Your task to perform on an android device: Open calendar and show me the first week of next month Image 0: 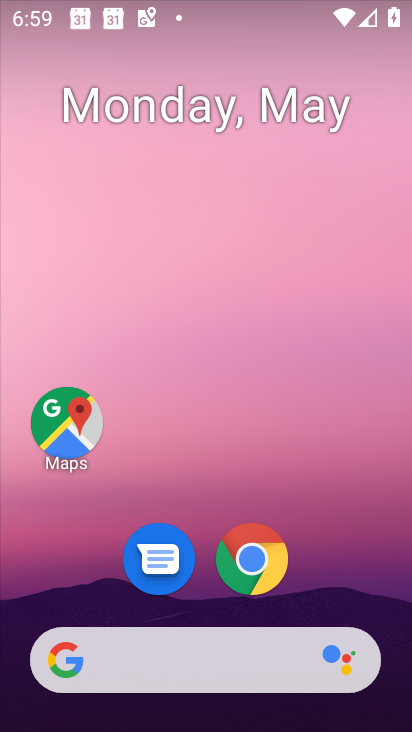
Step 0: drag from (389, 647) to (268, 40)
Your task to perform on an android device: Open calendar and show me the first week of next month Image 1: 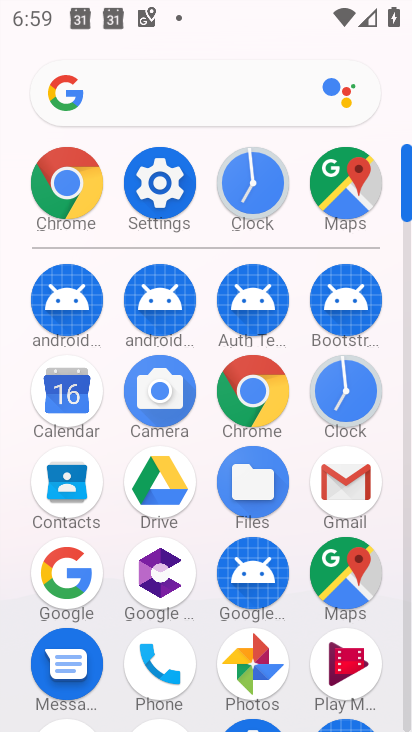
Step 1: click (71, 436)
Your task to perform on an android device: Open calendar and show me the first week of next month Image 2: 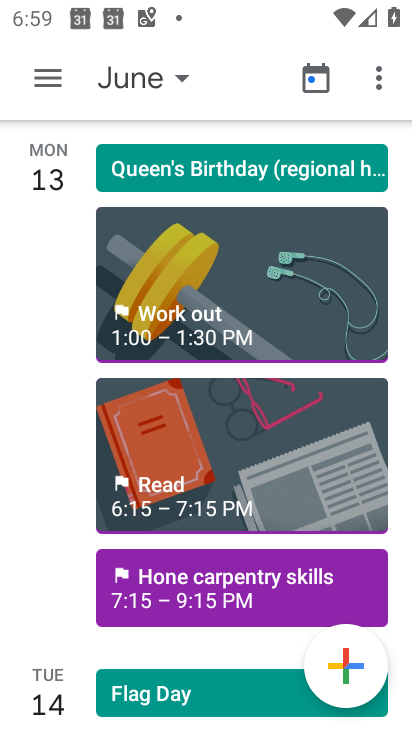
Step 2: click (141, 77)
Your task to perform on an android device: Open calendar and show me the first week of next month Image 3: 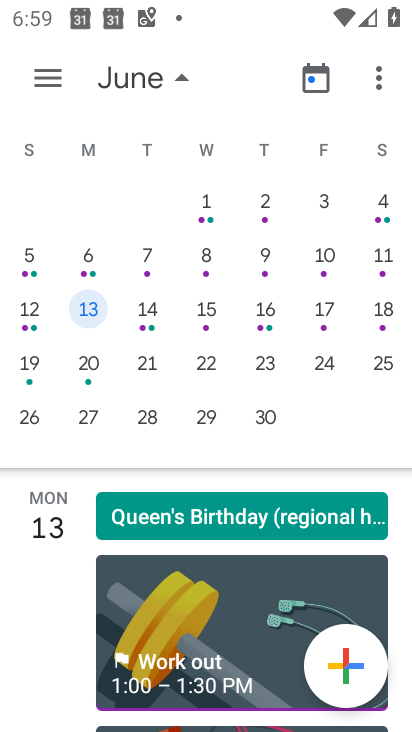
Step 3: drag from (368, 320) to (20, 223)
Your task to perform on an android device: Open calendar and show me the first week of next month Image 4: 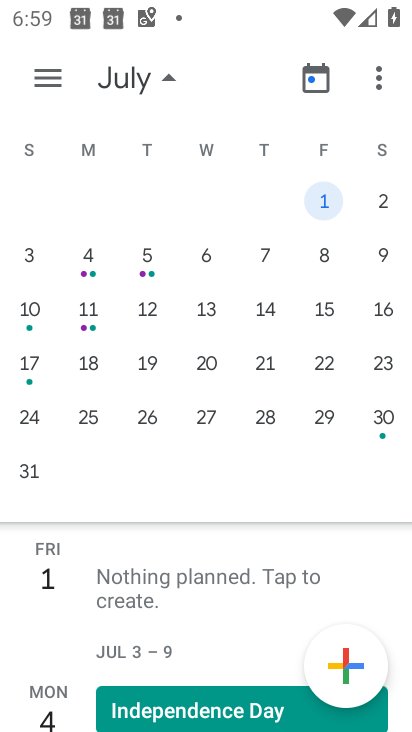
Step 4: click (92, 262)
Your task to perform on an android device: Open calendar and show me the first week of next month Image 5: 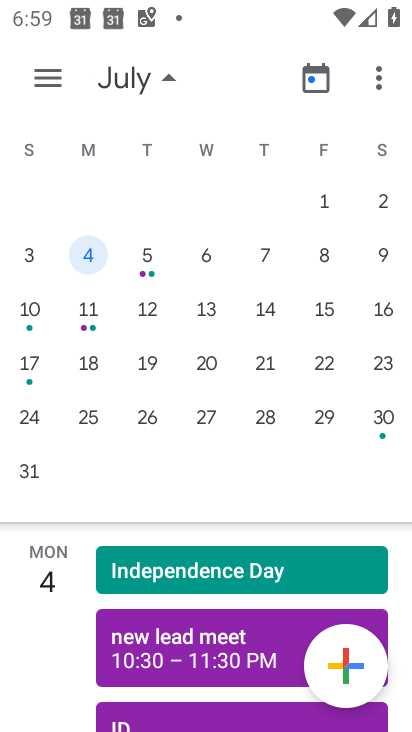
Step 5: task complete